Your task to perform on an android device: turn on translation in the chrome app Image 0: 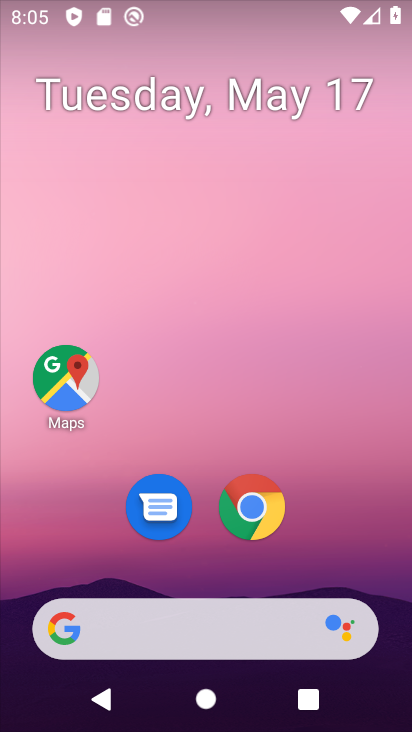
Step 0: click (253, 508)
Your task to perform on an android device: turn on translation in the chrome app Image 1: 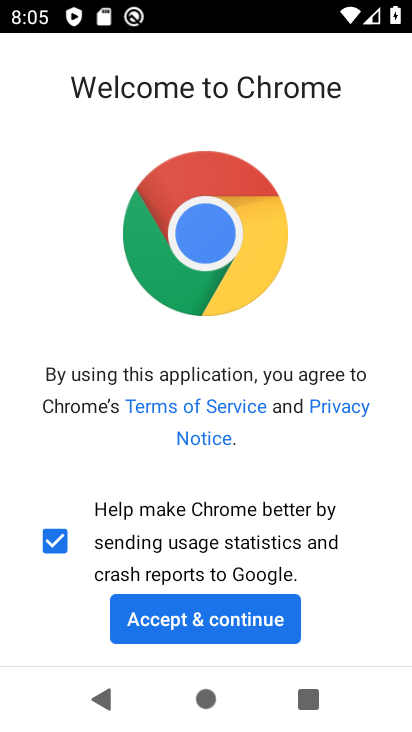
Step 1: click (223, 617)
Your task to perform on an android device: turn on translation in the chrome app Image 2: 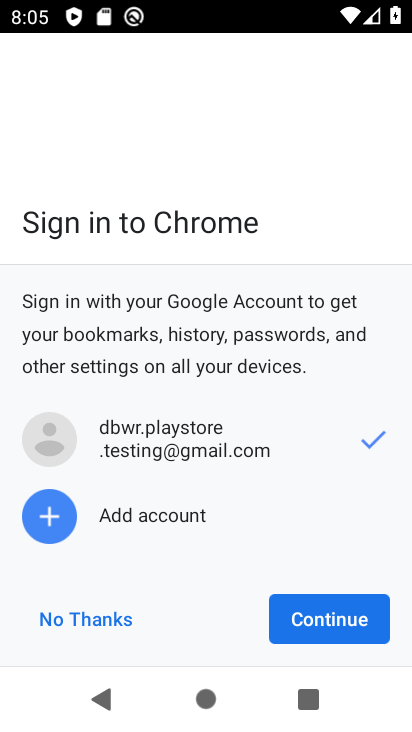
Step 2: click (318, 617)
Your task to perform on an android device: turn on translation in the chrome app Image 3: 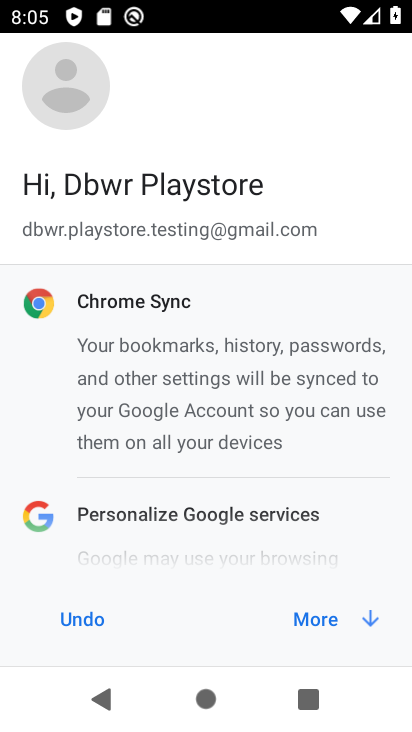
Step 3: click (318, 617)
Your task to perform on an android device: turn on translation in the chrome app Image 4: 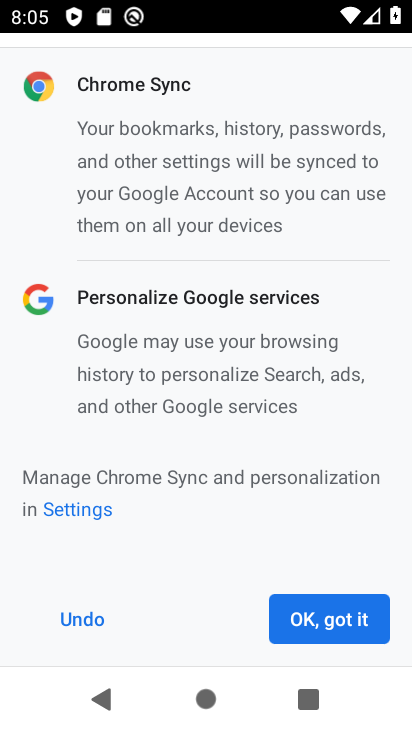
Step 4: click (318, 617)
Your task to perform on an android device: turn on translation in the chrome app Image 5: 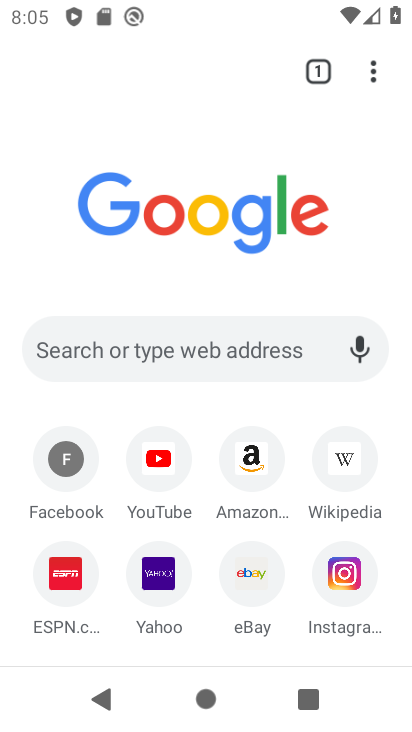
Step 5: click (373, 69)
Your task to perform on an android device: turn on translation in the chrome app Image 6: 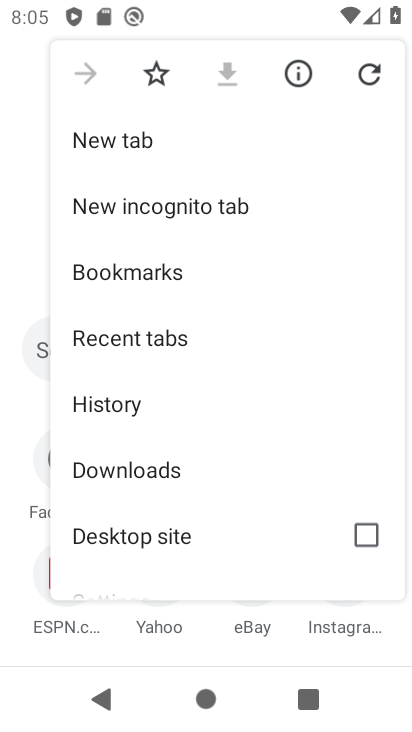
Step 6: drag from (175, 439) to (180, 341)
Your task to perform on an android device: turn on translation in the chrome app Image 7: 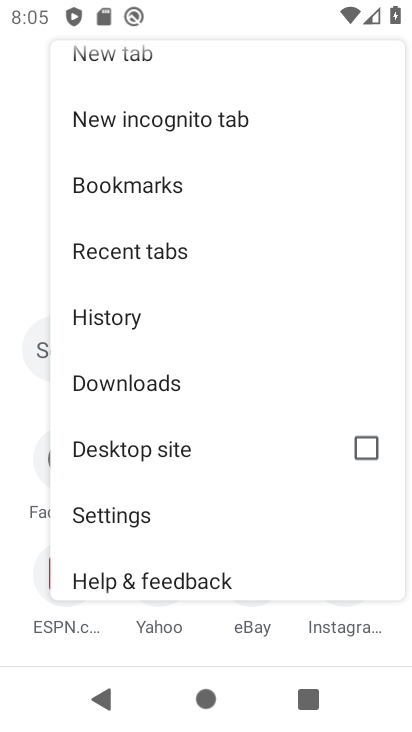
Step 7: drag from (135, 420) to (165, 344)
Your task to perform on an android device: turn on translation in the chrome app Image 8: 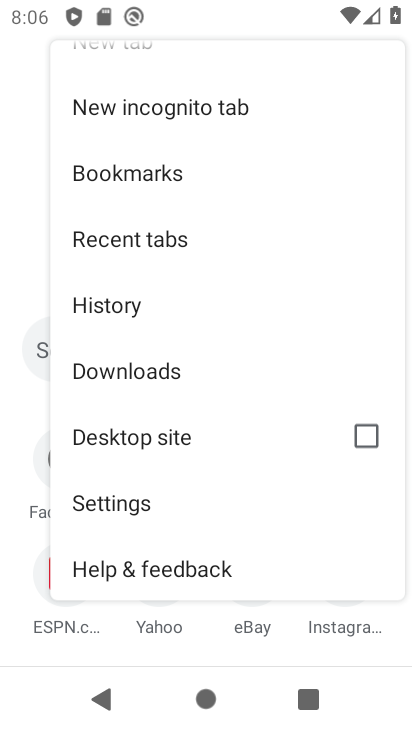
Step 8: click (149, 501)
Your task to perform on an android device: turn on translation in the chrome app Image 9: 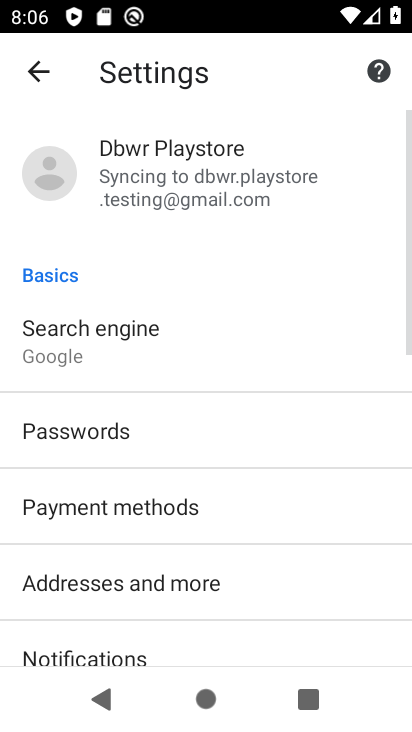
Step 9: drag from (150, 532) to (262, 392)
Your task to perform on an android device: turn on translation in the chrome app Image 10: 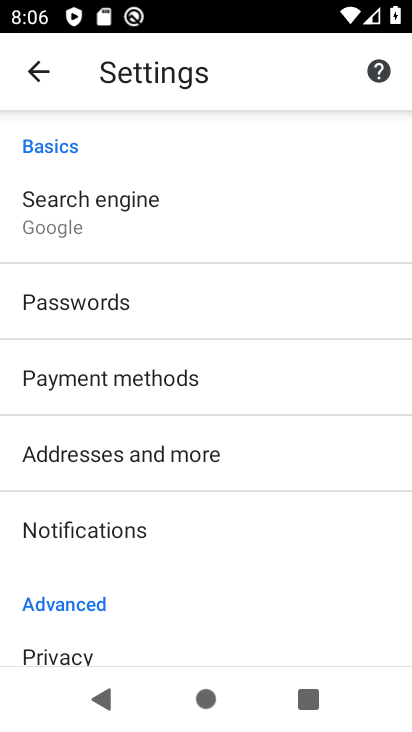
Step 10: drag from (129, 565) to (201, 410)
Your task to perform on an android device: turn on translation in the chrome app Image 11: 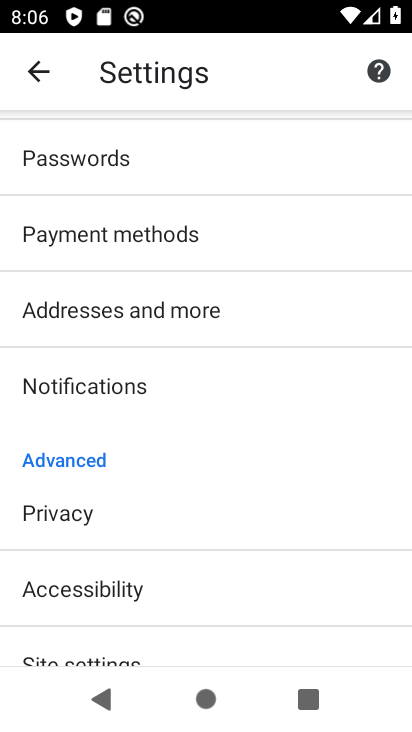
Step 11: drag from (138, 538) to (180, 461)
Your task to perform on an android device: turn on translation in the chrome app Image 12: 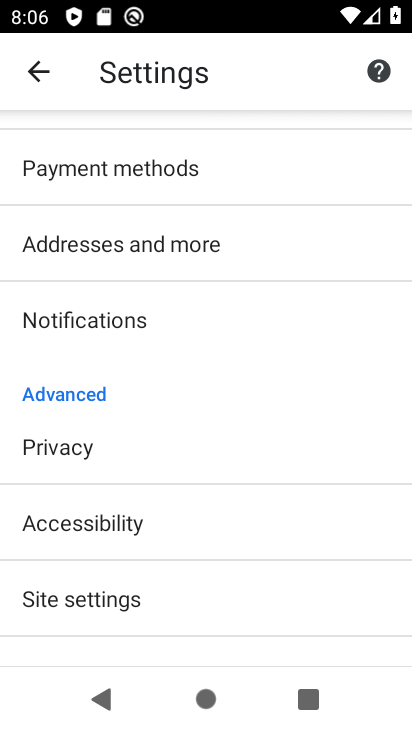
Step 12: drag from (173, 583) to (270, 458)
Your task to perform on an android device: turn on translation in the chrome app Image 13: 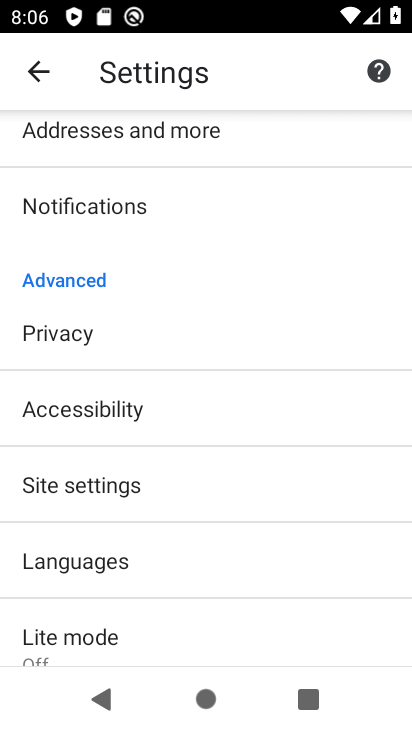
Step 13: click (110, 557)
Your task to perform on an android device: turn on translation in the chrome app Image 14: 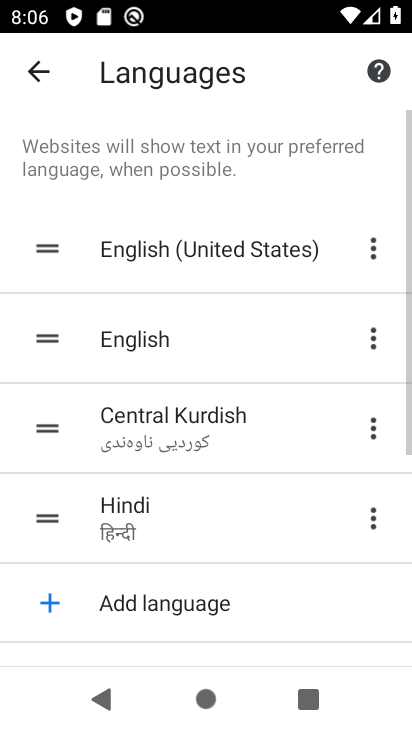
Step 14: task complete